Your task to perform on an android device: Go to Google maps Image 0: 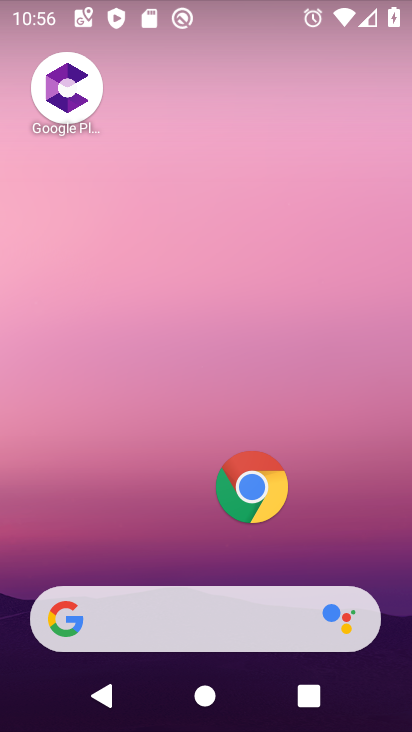
Step 0: drag from (188, 547) to (224, 158)
Your task to perform on an android device: Go to Google maps Image 1: 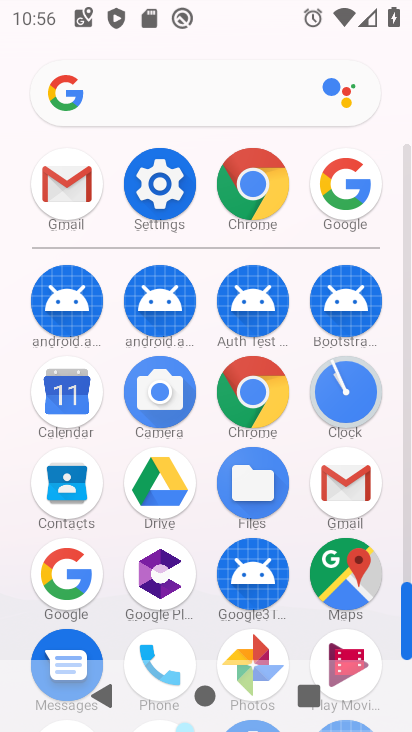
Step 1: click (347, 570)
Your task to perform on an android device: Go to Google maps Image 2: 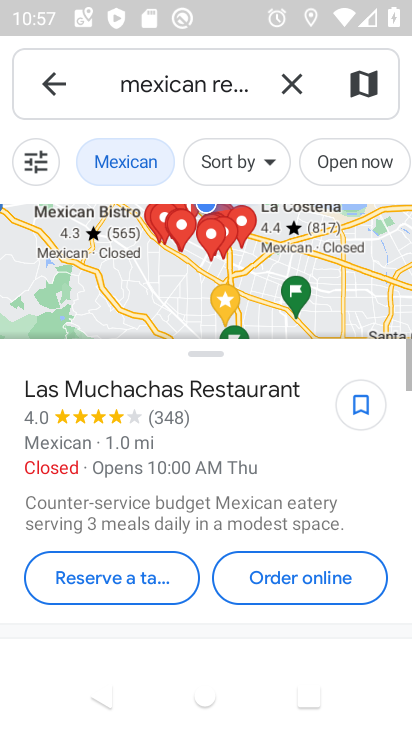
Step 2: task complete